Your task to perform on an android device: open app "NewsBreak: Local News & Alerts" (install if not already installed) and go to login screen Image 0: 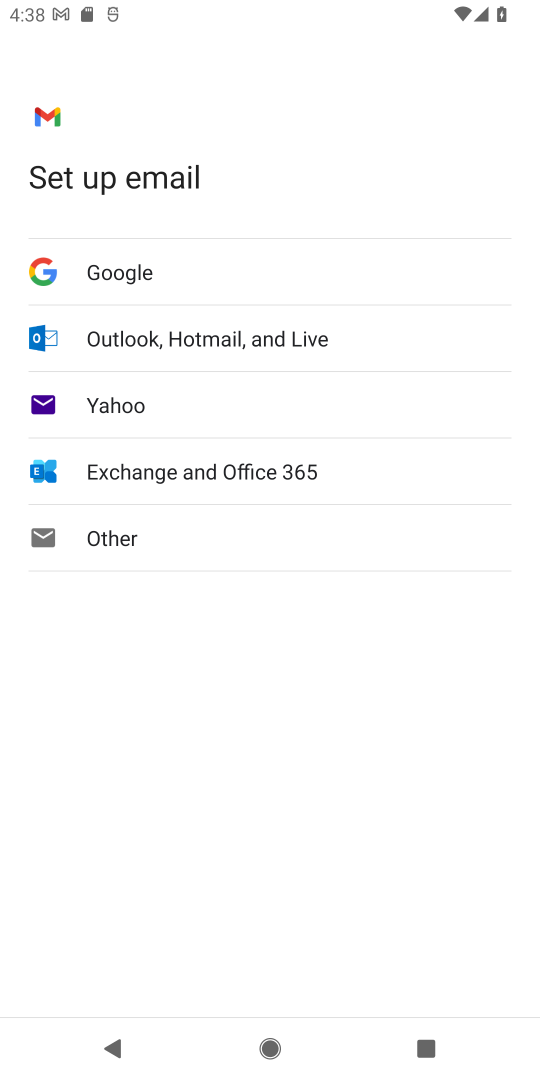
Step 0: press home button
Your task to perform on an android device: open app "NewsBreak: Local News & Alerts" (install if not already installed) and go to login screen Image 1: 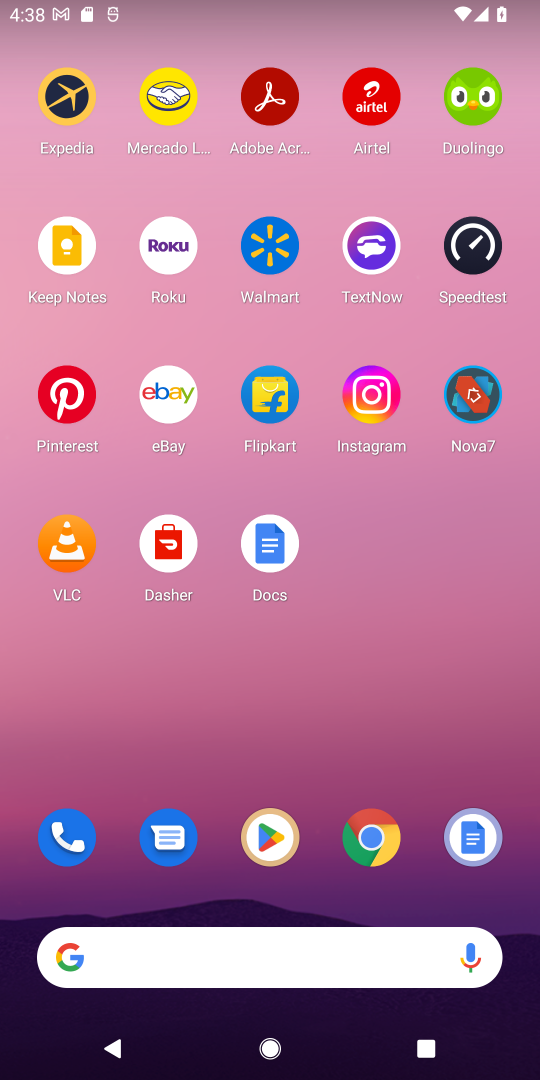
Step 1: press home button
Your task to perform on an android device: open app "NewsBreak: Local News & Alerts" (install if not already installed) and go to login screen Image 2: 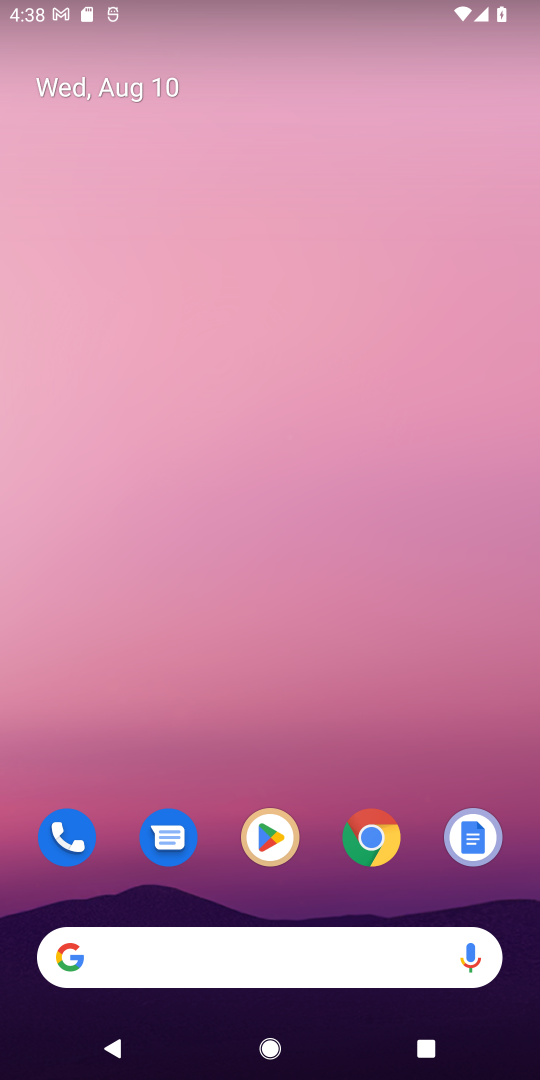
Step 2: click (275, 828)
Your task to perform on an android device: open app "NewsBreak: Local News & Alerts" (install if not already installed) and go to login screen Image 3: 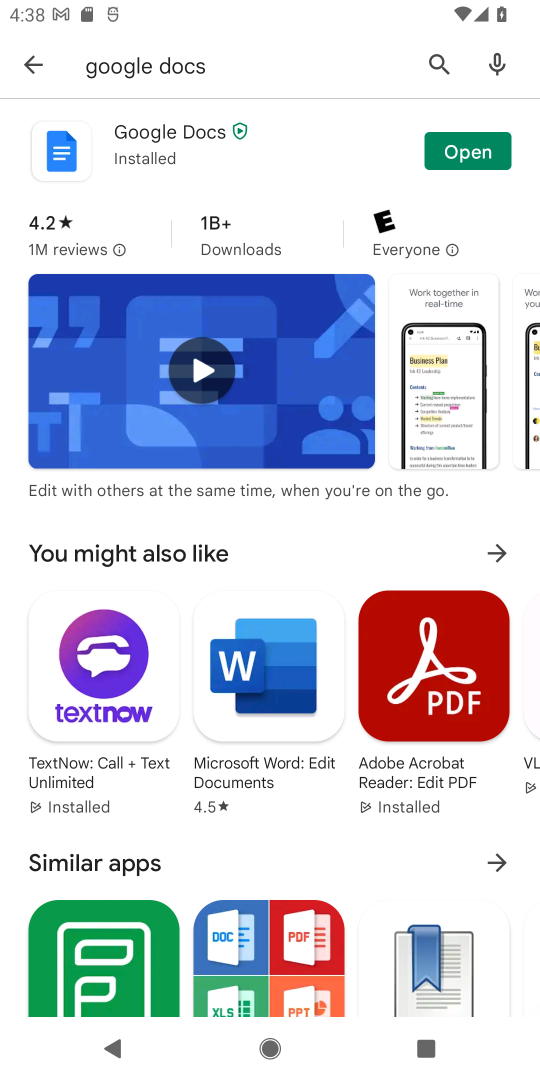
Step 3: click (434, 57)
Your task to perform on an android device: open app "NewsBreak: Local News & Alerts" (install if not already installed) and go to login screen Image 4: 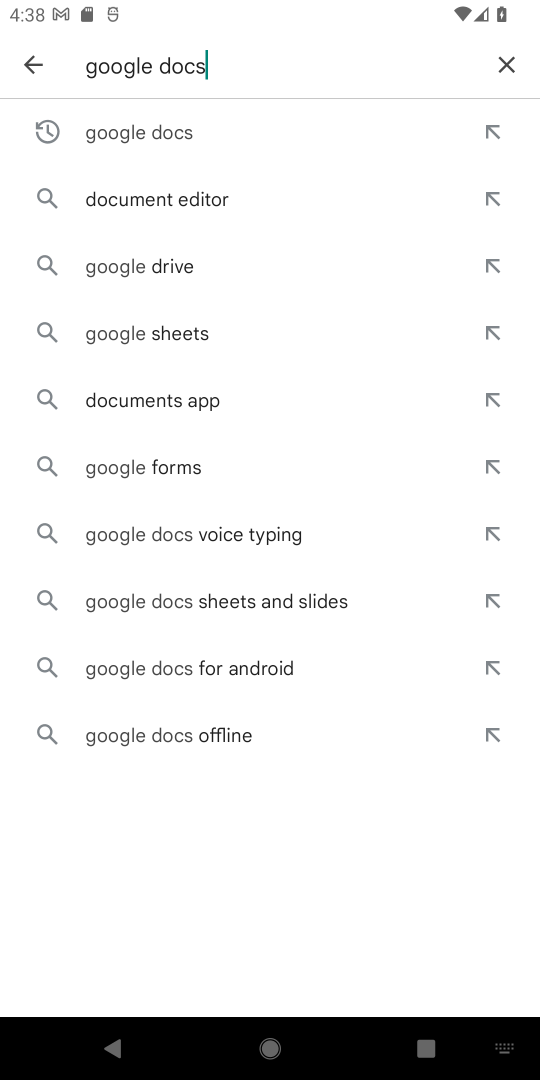
Step 4: click (500, 57)
Your task to perform on an android device: open app "NewsBreak: Local News & Alerts" (install if not already installed) and go to login screen Image 5: 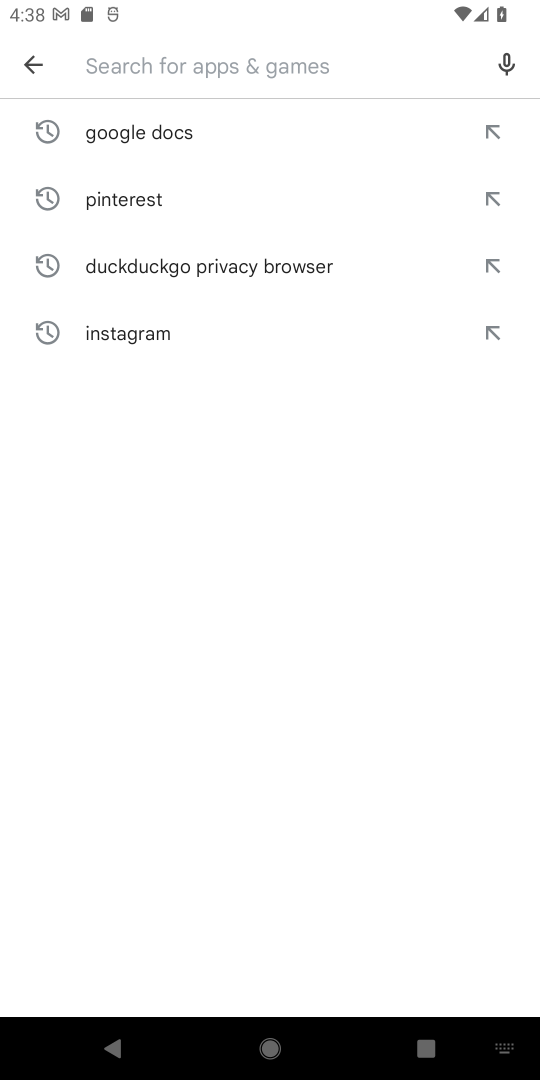
Step 5: type "NewsBreak: Local News & Alerts"
Your task to perform on an android device: open app "NewsBreak: Local News & Alerts" (install if not already installed) and go to login screen Image 6: 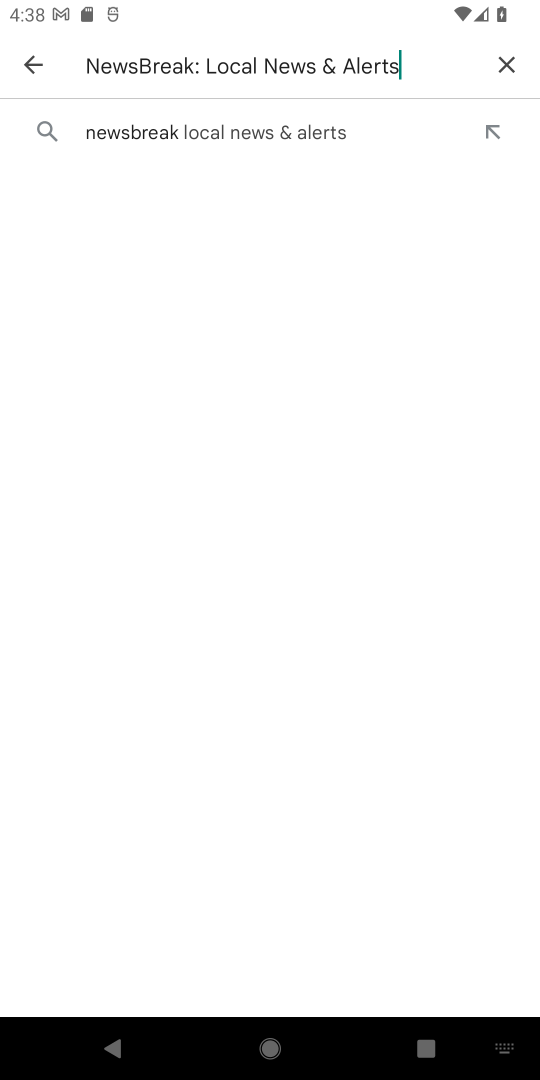
Step 6: click (245, 138)
Your task to perform on an android device: open app "NewsBreak: Local News & Alerts" (install if not already installed) and go to login screen Image 7: 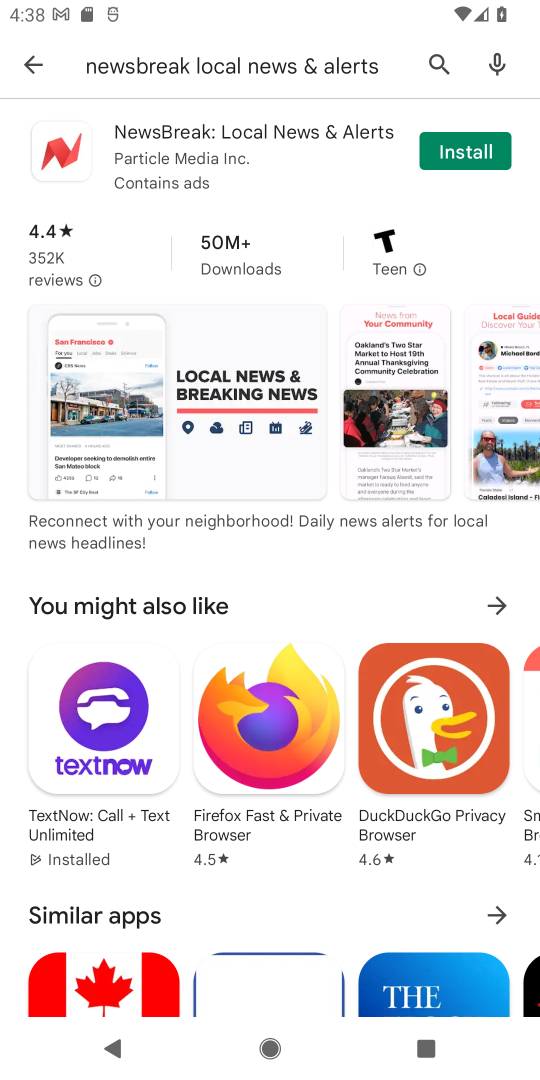
Step 7: click (461, 153)
Your task to perform on an android device: open app "NewsBreak: Local News & Alerts" (install if not already installed) and go to login screen Image 8: 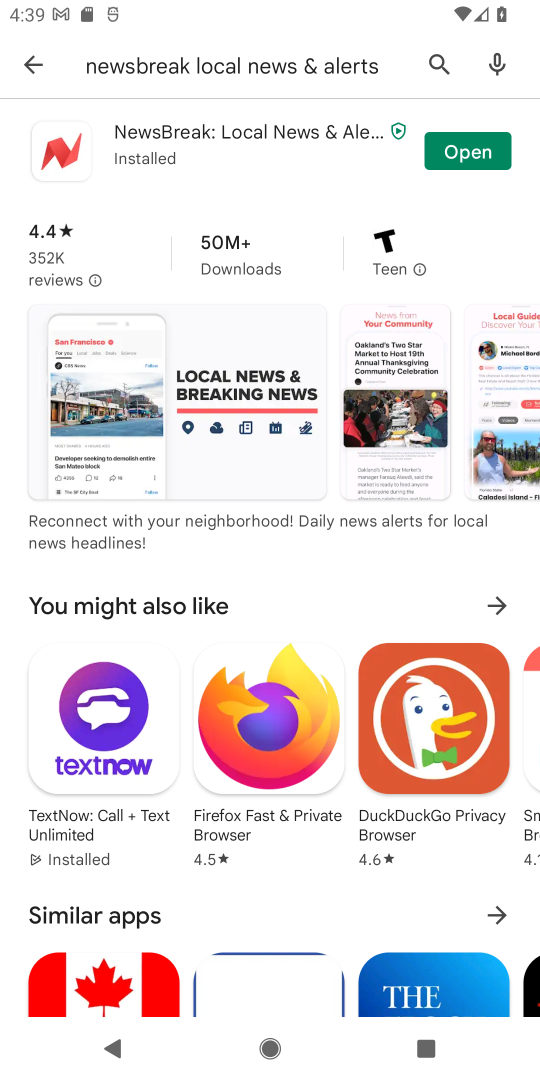
Step 8: click (455, 142)
Your task to perform on an android device: open app "NewsBreak: Local News & Alerts" (install if not already installed) and go to login screen Image 9: 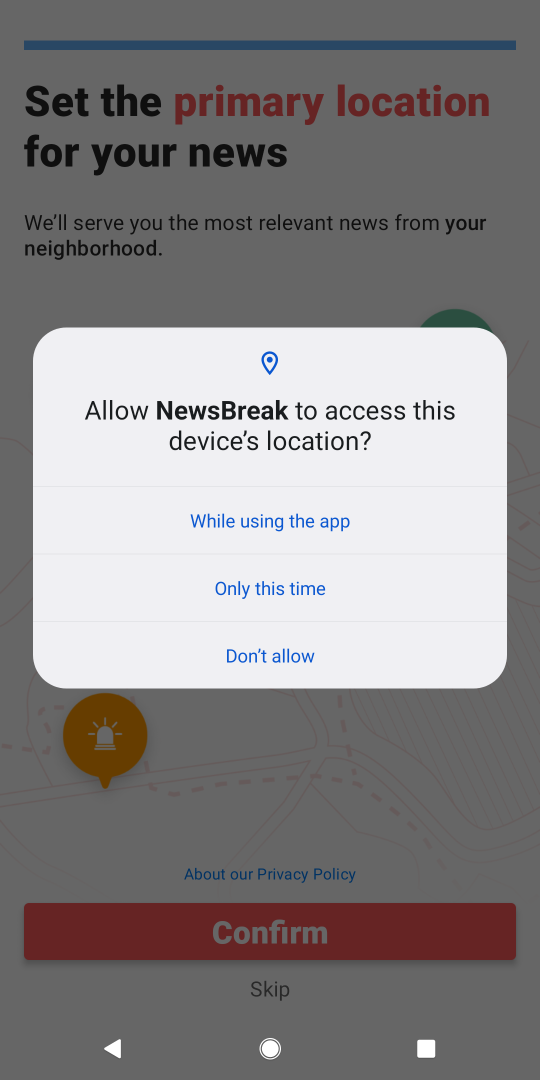
Step 9: task complete